Your task to perform on an android device: snooze an email in the gmail app Image 0: 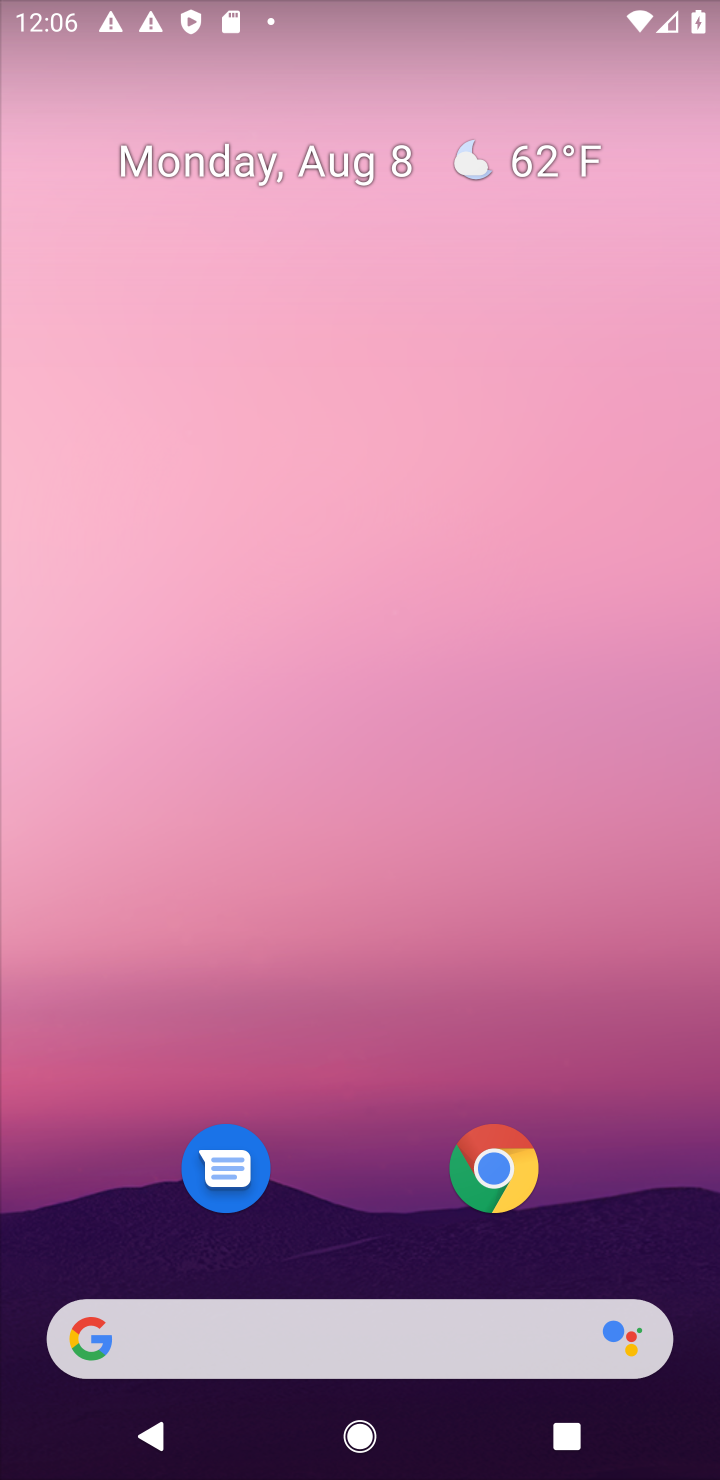
Step 0: drag from (400, 1290) to (344, 62)
Your task to perform on an android device: snooze an email in the gmail app Image 1: 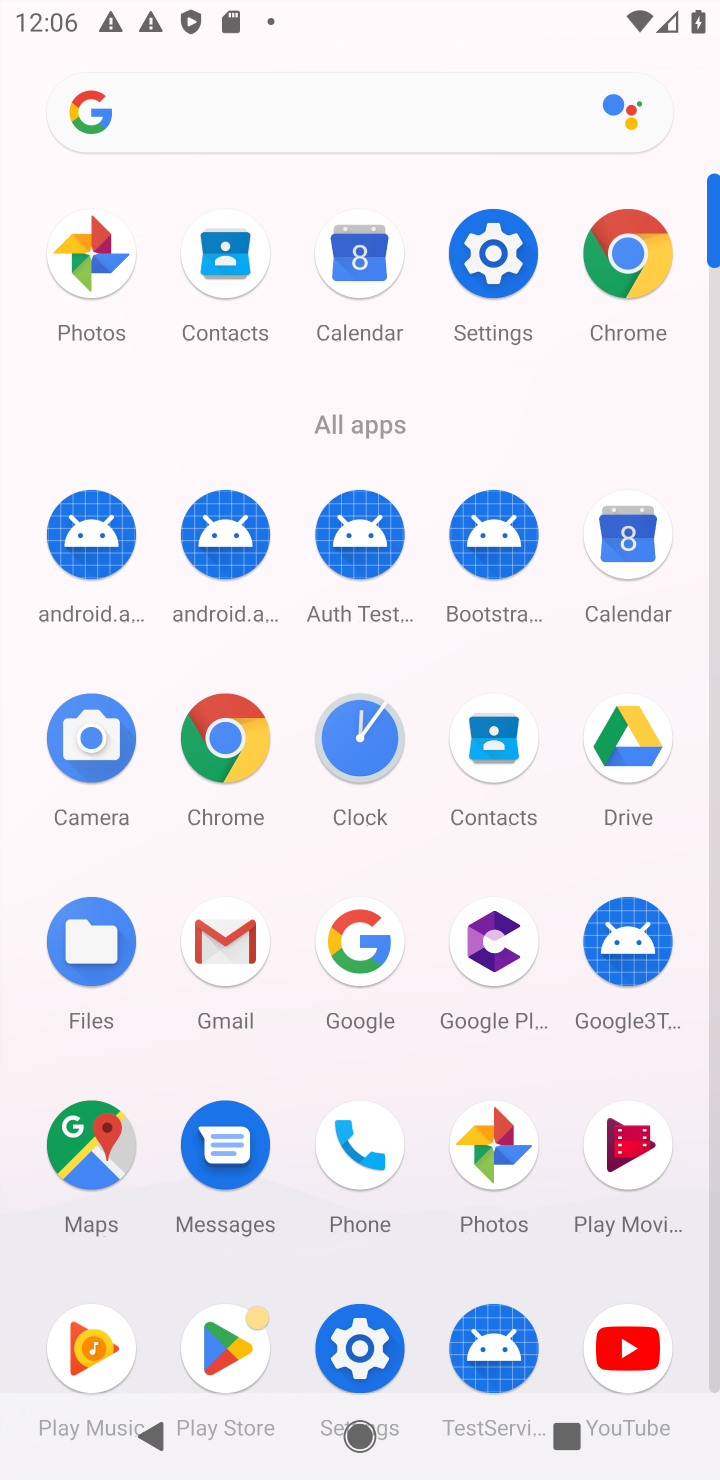
Step 1: click (246, 975)
Your task to perform on an android device: snooze an email in the gmail app Image 2: 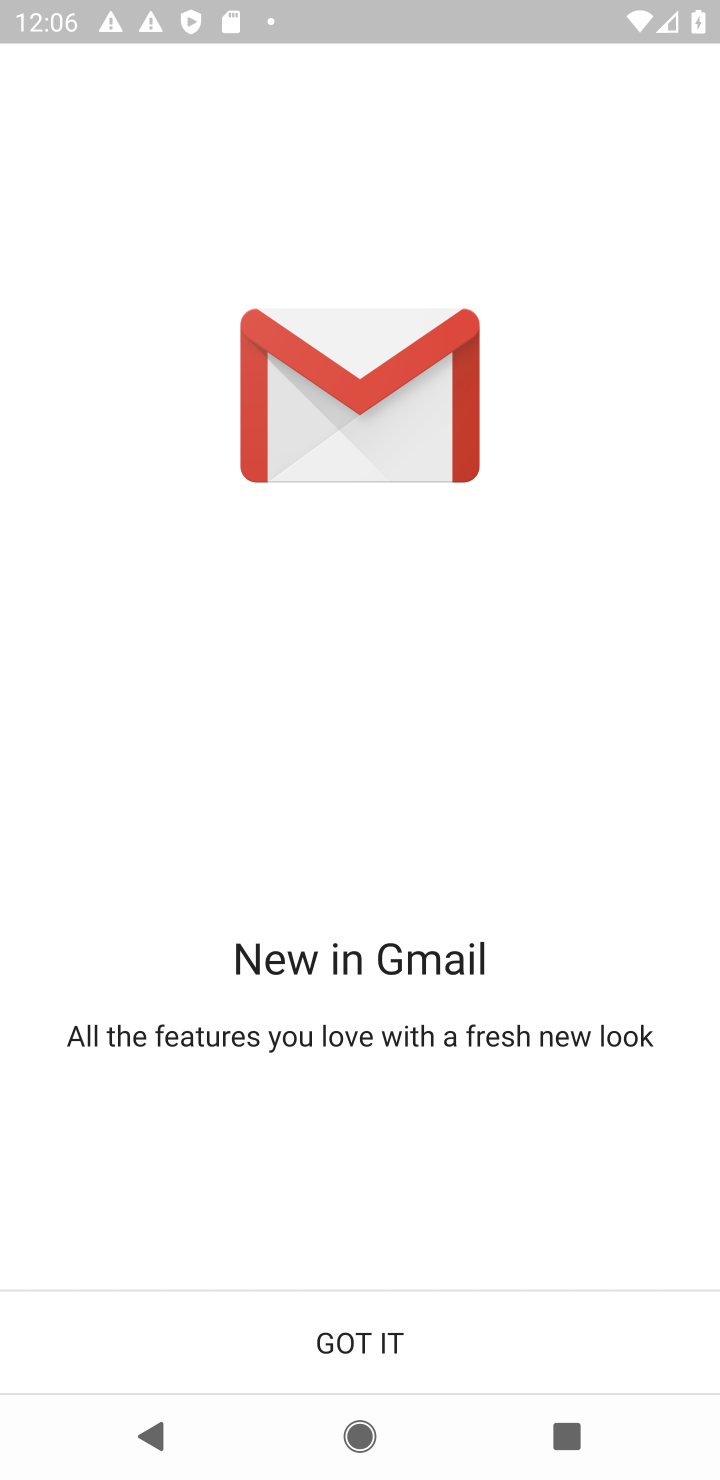
Step 2: click (319, 1300)
Your task to perform on an android device: snooze an email in the gmail app Image 3: 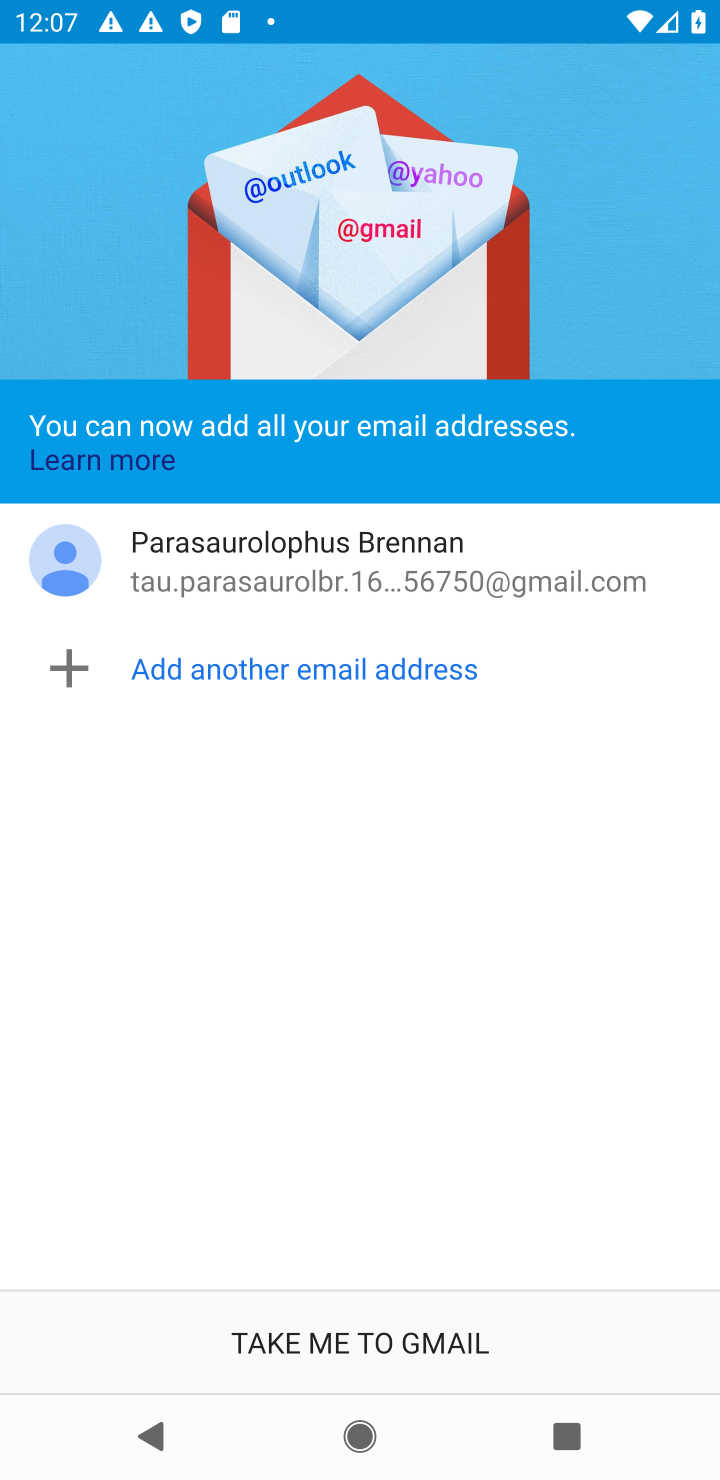
Step 3: click (319, 1300)
Your task to perform on an android device: snooze an email in the gmail app Image 4: 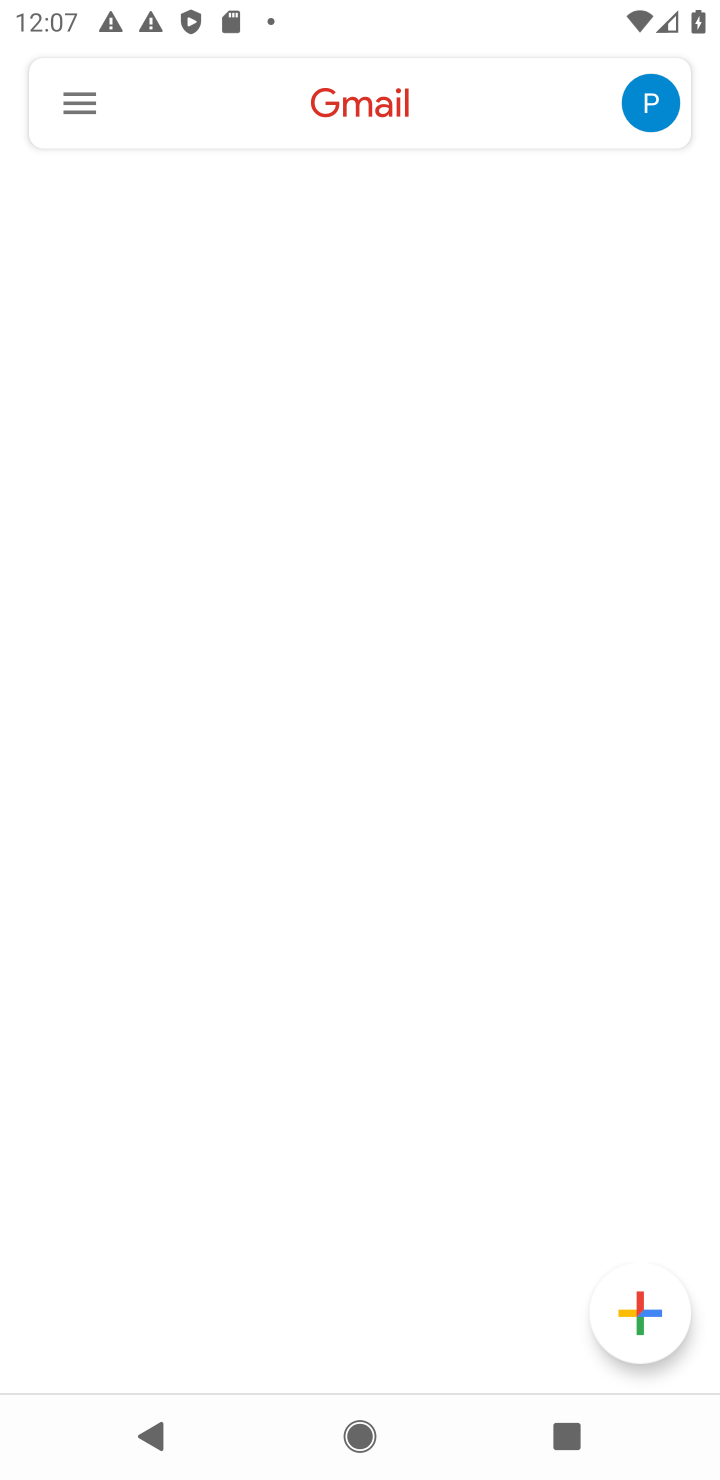
Step 4: task complete